Your task to perform on an android device: manage bookmarks in the chrome app Image 0: 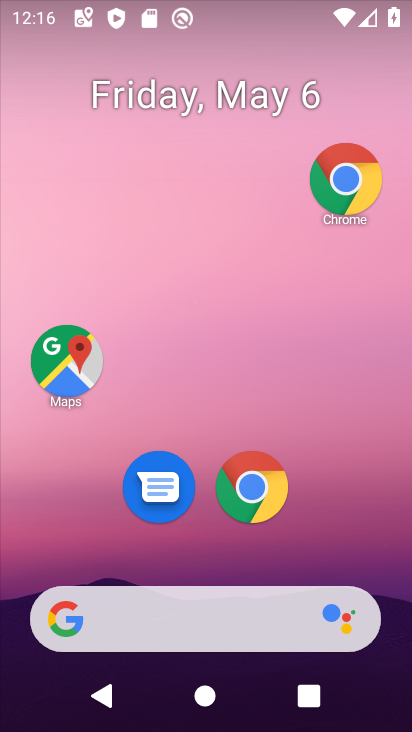
Step 0: click (268, 506)
Your task to perform on an android device: manage bookmarks in the chrome app Image 1: 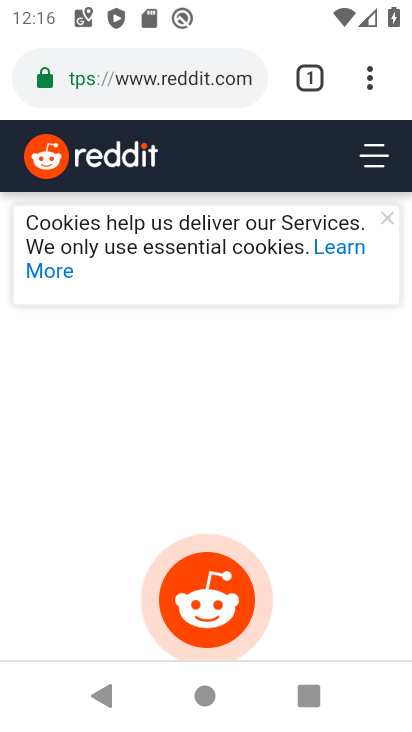
Step 1: click (363, 86)
Your task to perform on an android device: manage bookmarks in the chrome app Image 2: 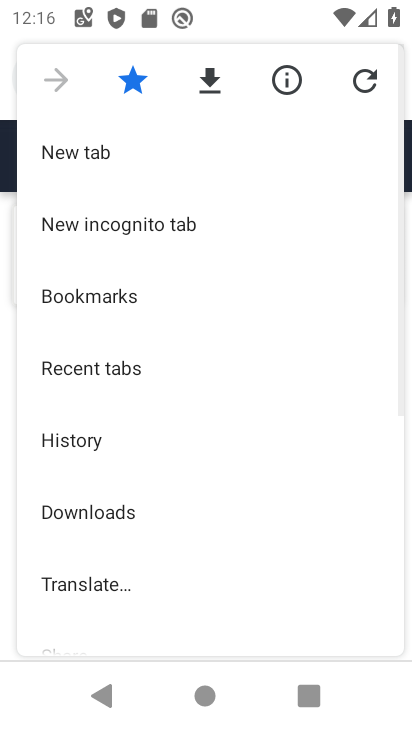
Step 2: click (184, 318)
Your task to perform on an android device: manage bookmarks in the chrome app Image 3: 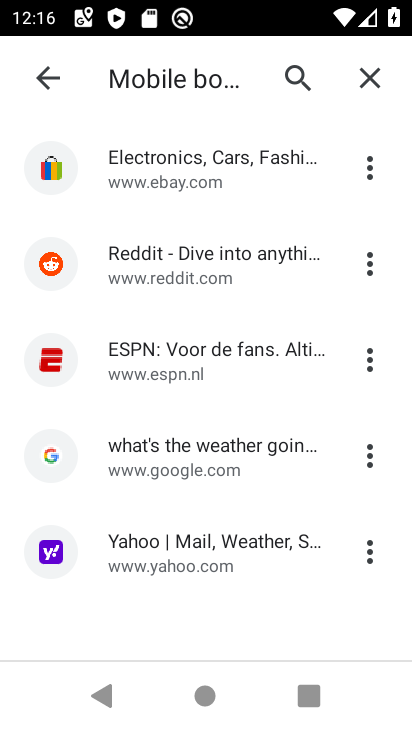
Step 3: click (362, 457)
Your task to perform on an android device: manage bookmarks in the chrome app Image 4: 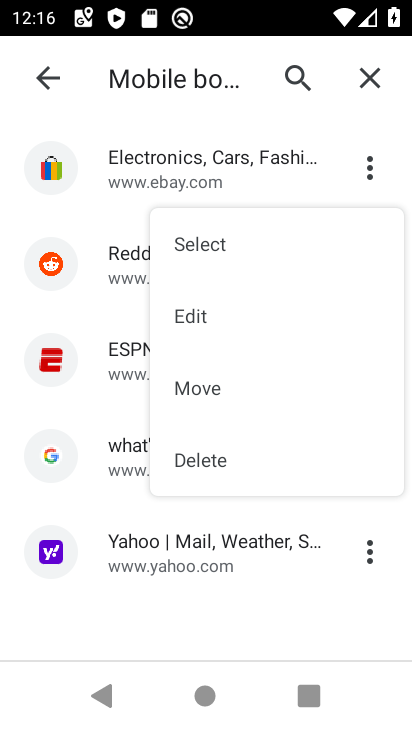
Step 4: click (230, 443)
Your task to perform on an android device: manage bookmarks in the chrome app Image 5: 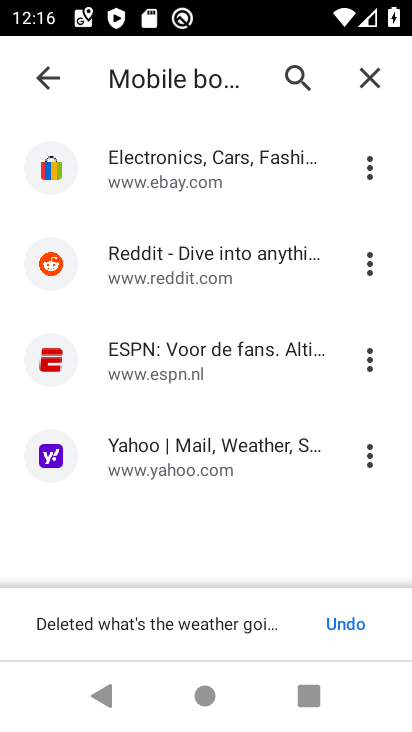
Step 5: task complete